Your task to perform on an android device: Check the weather Image 0: 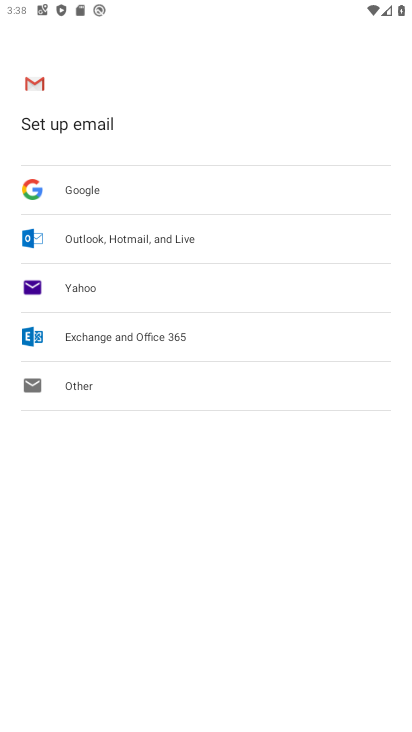
Step 0: press back button
Your task to perform on an android device: Check the weather Image 1: 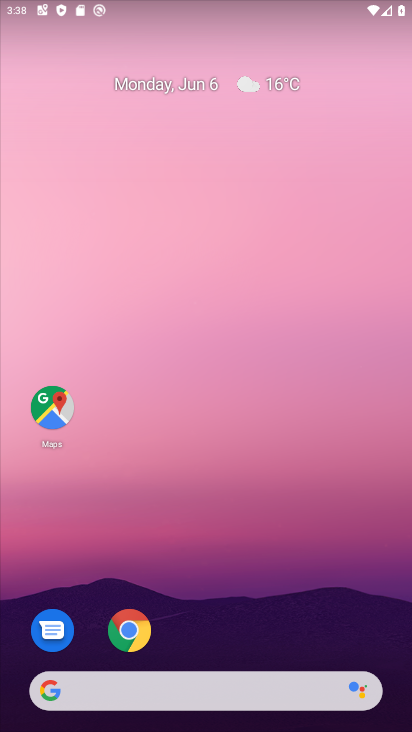
Step 1: click (254, 85)
Your task to perform on an android device: Check the weather Image 2: 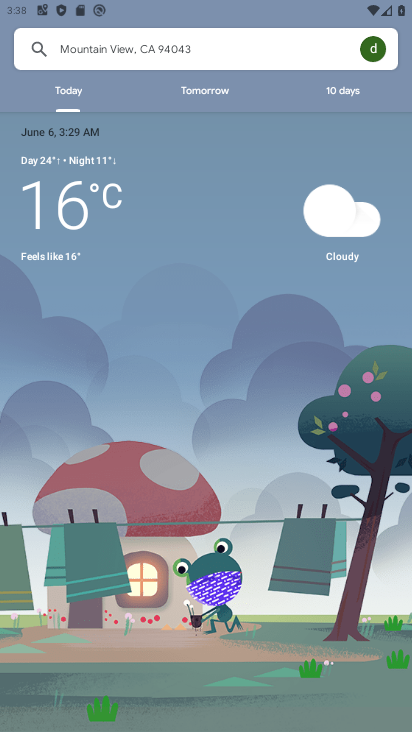
Step 2: task complete